Your task to perform on an android device: visit the assistant section in the google photos Image 0: 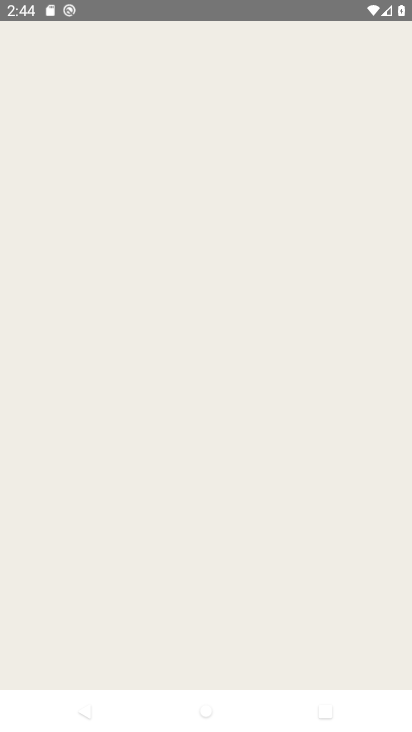
Step 0: drag from (339, 225) to (353, 47)
Your task to perform on an android device: visit the assistant section in the google photos Image 1: 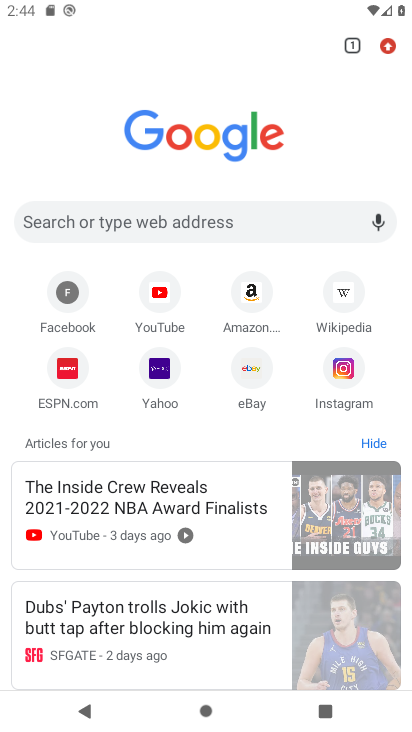
Step 1: press home button
Your task to perform on an android device: visit the assistant section in the google photos Image 2: 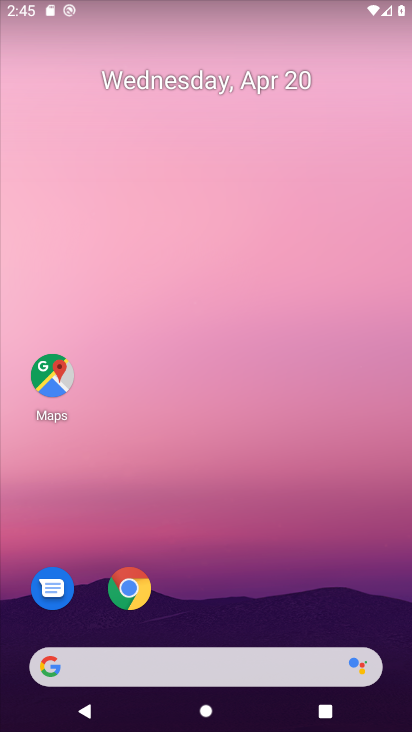
Step 2: drag from (356, 579) to (359, 95)
Your task to perform on an android device: visit the assistant section in the google photos Image 3: 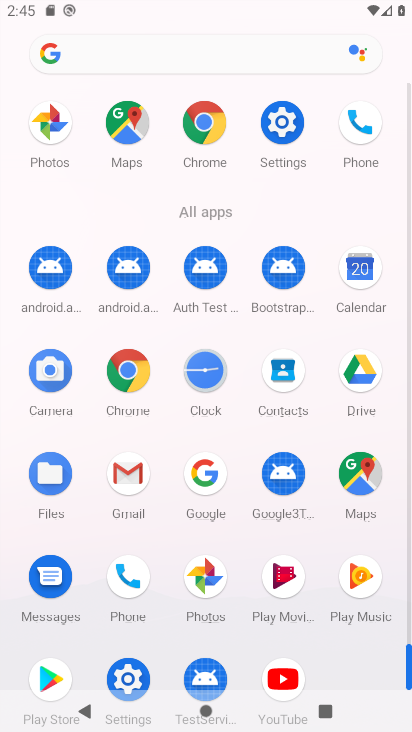
Step 3: click (215, 575)
Your task to perform on an android device: visit the assistant section in the google photos Image 4: 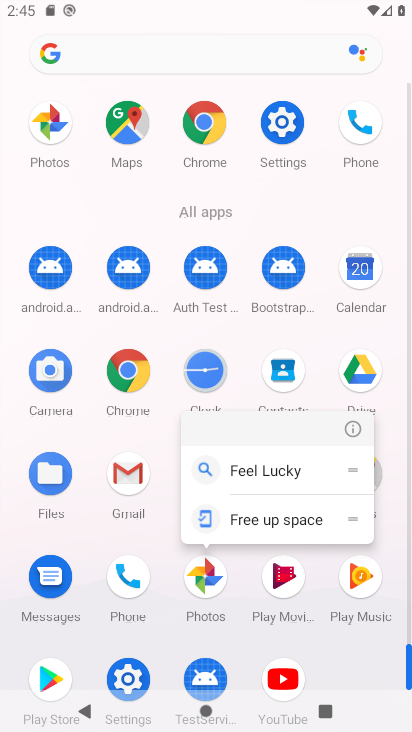
Step 4: click (210, 573)
Your task to perform on an android device: visit the assistant section in the google photos Image 5: 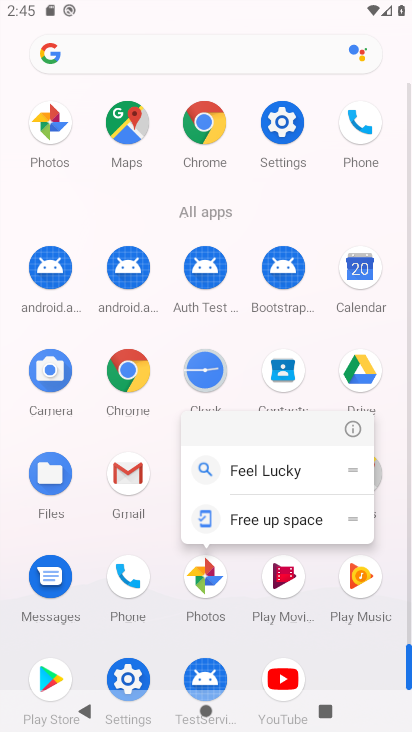
Step 5: click (214, 579)
Your task to perform on an android device: visit the assistant section in the google photos Image 6: 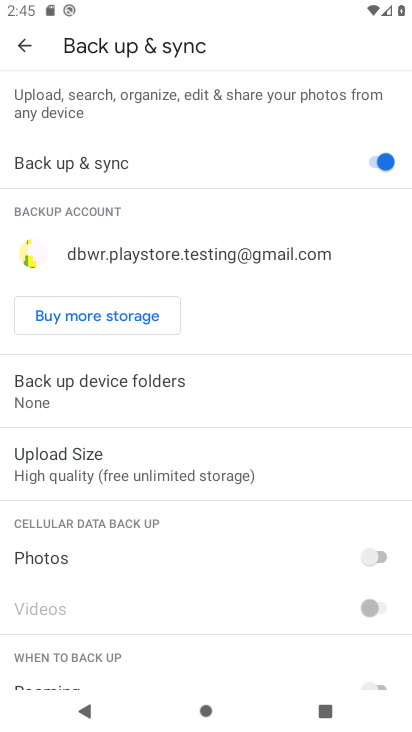
Step 6: click (27, 44)
Your task to perform on an android device: visit the assistant section in the google photos Image 7: 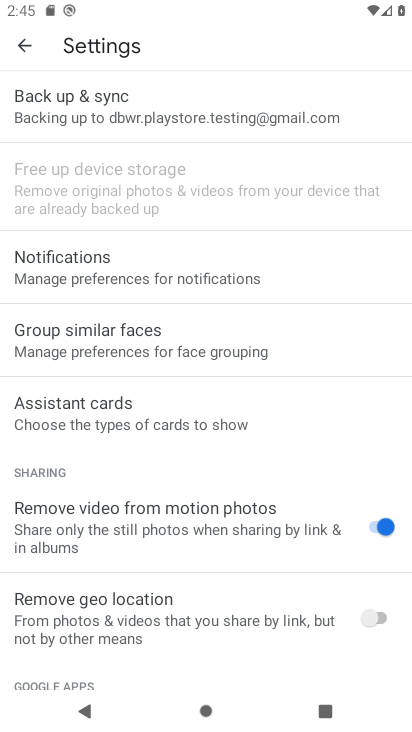
Step 7: click (24, 41)
Your task to perform on an android device: visit the assistant section in the google photos Image 8: 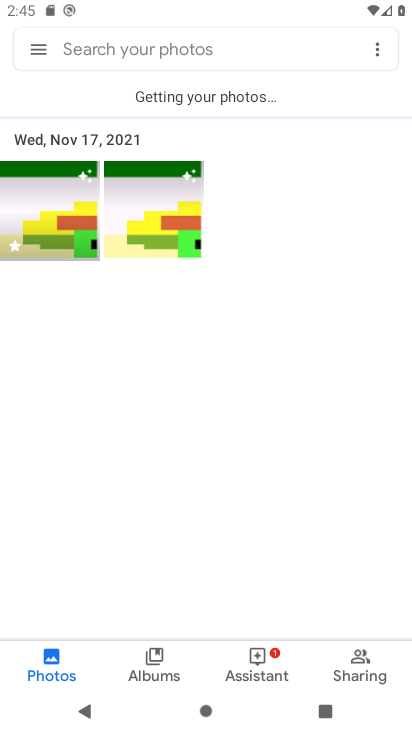
Step 8: click (258, 665)
Your task to perform on an android device: visit the assistant section in the google photos Image 9: 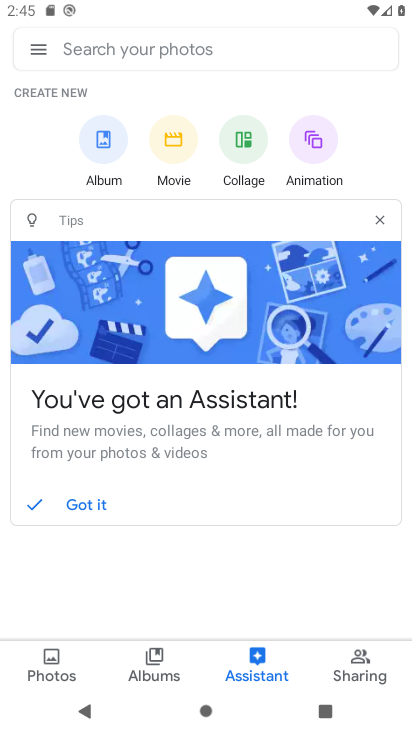
Step 9: task complete